Your task to perform on an android device: set the stopwatch Image 0: 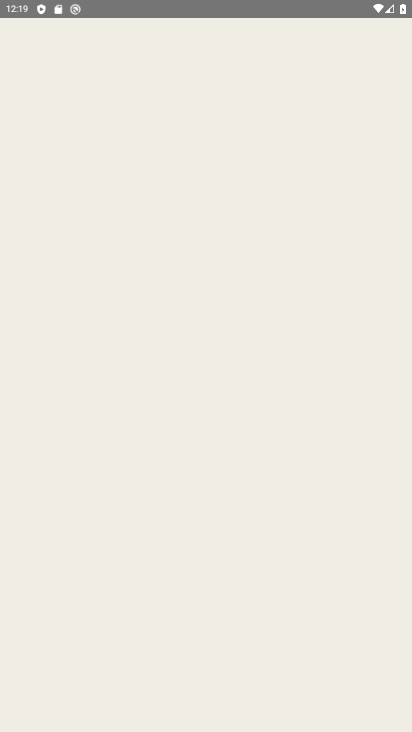
Step 0: click (302, 130)
Your task to perform on an android device: set the stopwatch Image 1: 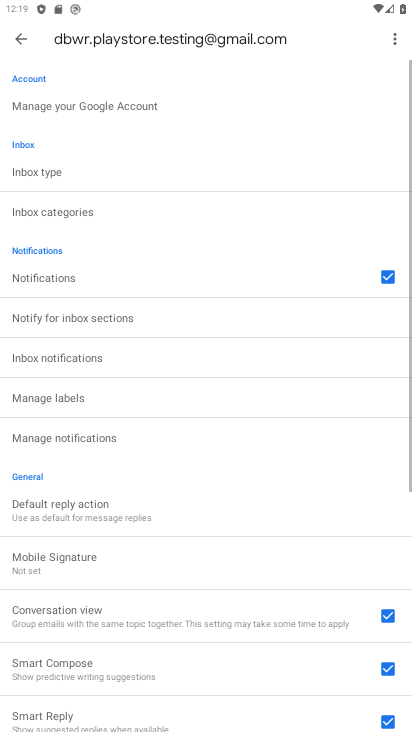
Step 1: press back button
Your task to perform on an android device: set the stopwatch Image 2: 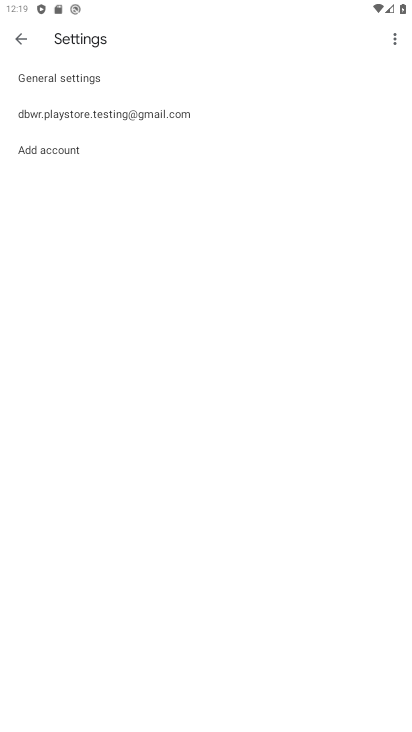
Step 2: press back button
Your task to perform on an android device: set the stopwatch Image 3: 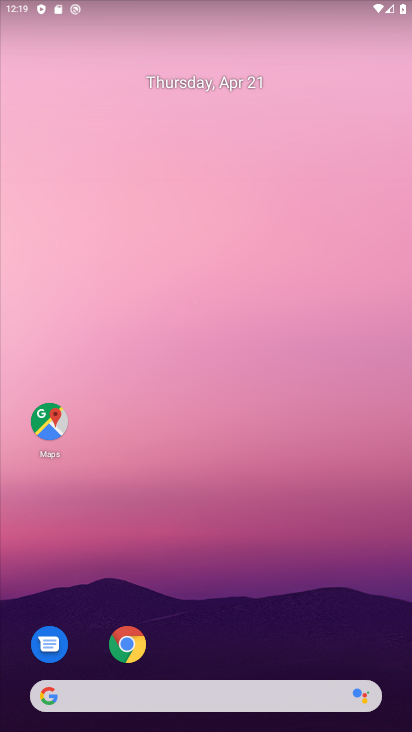
Step 3: drag from (267, 414) to (325, 36)
Your task to perform on an android device: set the stopwatch Image 4: 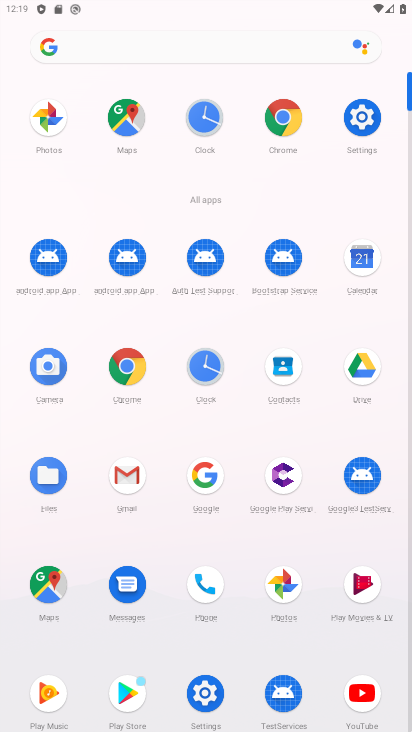
Step 4: click (208, 361)
Your task to perform on an android device: set the stopwatch Image 5: 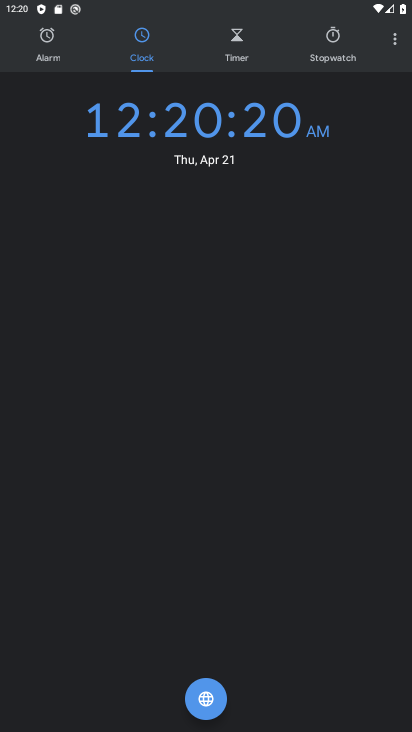
Step 5: click (315, 29)
Your task to perform on an android device: set the stopwatch Image 6: 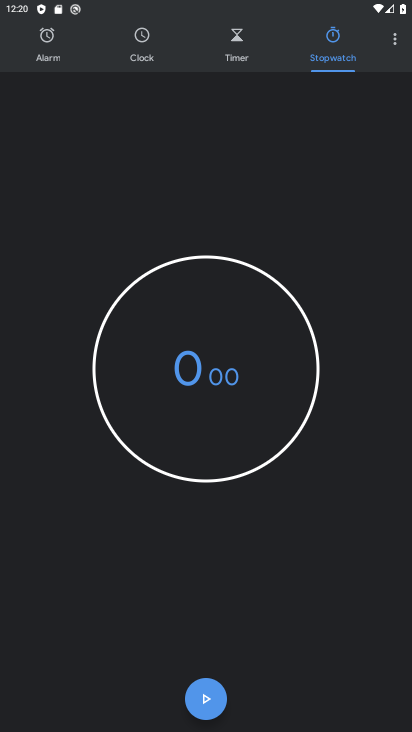
Step 6: click (179, 371)
Your task to perform on an android device: set the stopwatch Image 7: 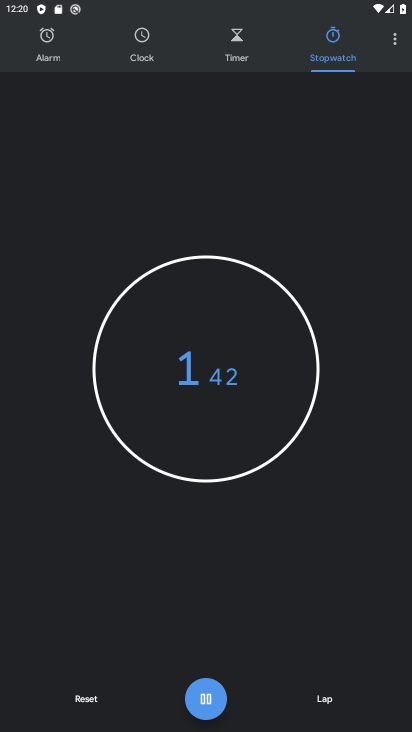
Step 7: click (182, 372)
Your task to perform on an android device: set the stopwatch Image 8: 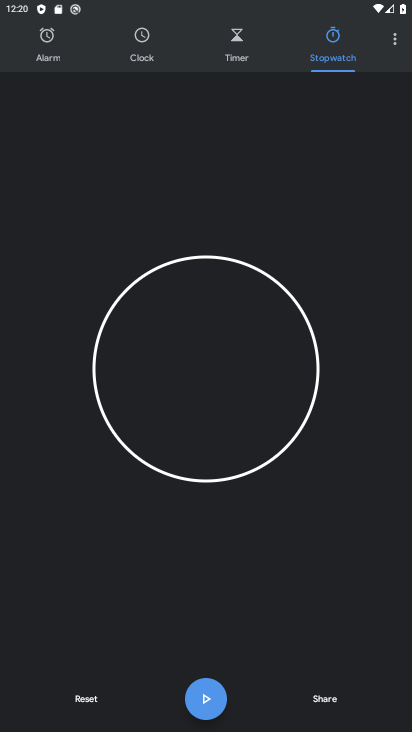
Step 8: task complete